Your task to perform on an android device: Go to Reddit.com Image 0: 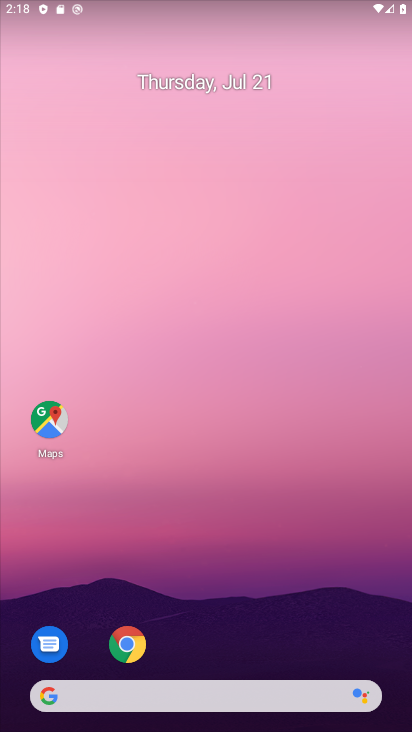
Step 0: drag from (211, 677) to (158, 263)
Your task to perform on an android device: Go to Reddit.com Image 1: 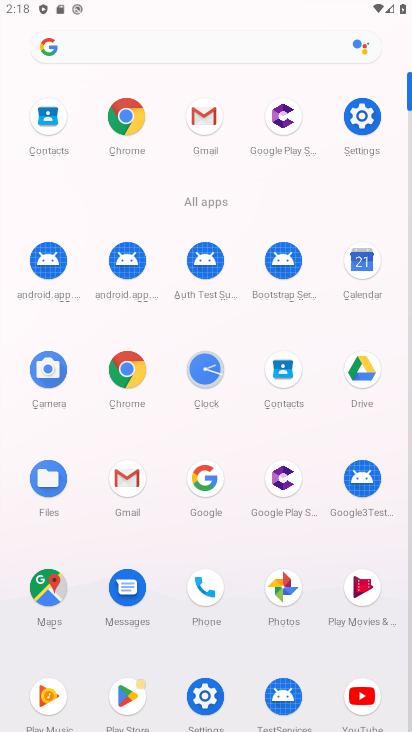
Step 1: click (141, 371)
Your task to perform on an android device: Go to Reddit.com Image 2: 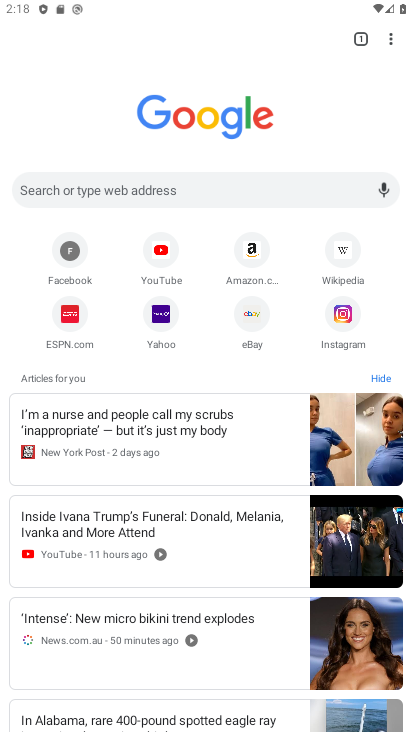
Step 2: click (219, 183)
Your task to perform on an android device: Go to Reddit.com Image 3: 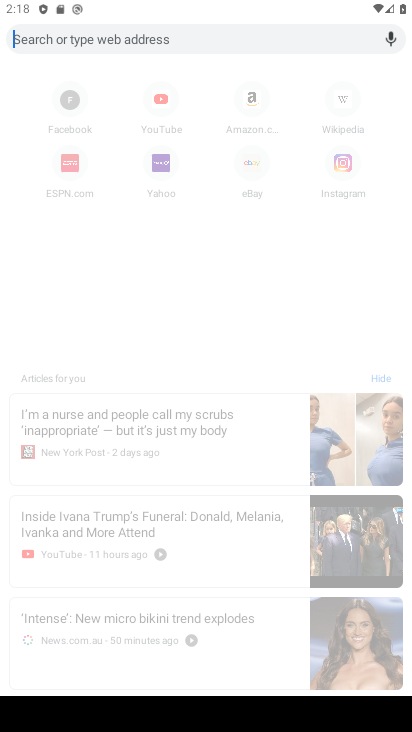
Step 3: type "reddit.com"
Your task to perform on an android device: Go to Reddit.com Image 4: 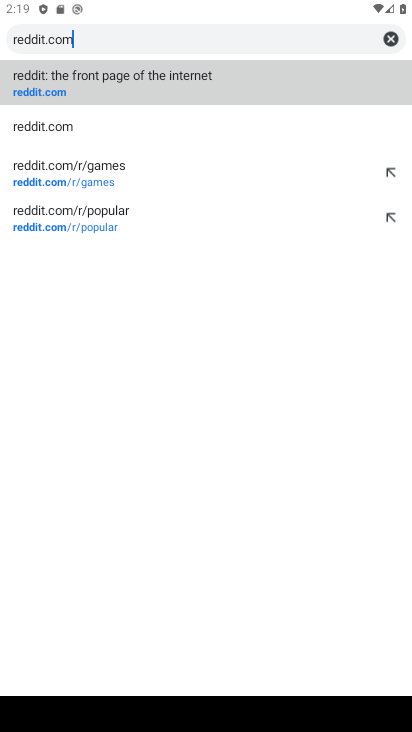
Step 4: click (291, 91)
Your task to perform on an android device: Go to Reddit.com Image 5: 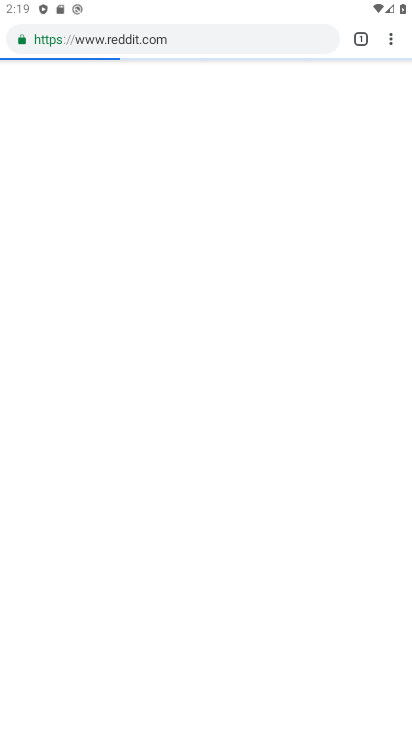
Step 5: task complete